Your task to perform on an android device: What's on my calendar tomorrow? Image 0: 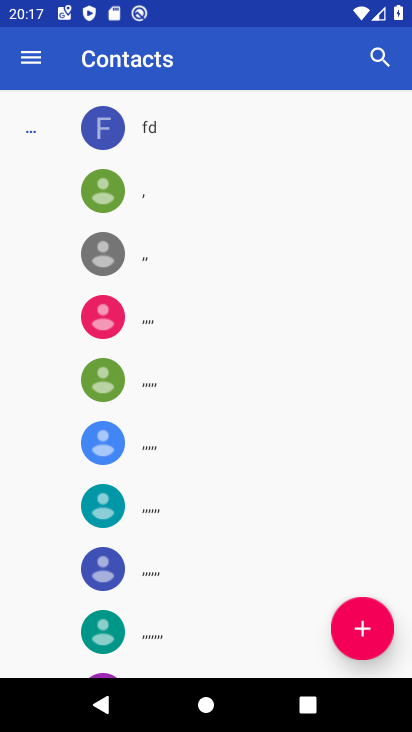
Step 0: press home button
Your task to perform on an android device: What's on my calendar tomorrow? Image 1: 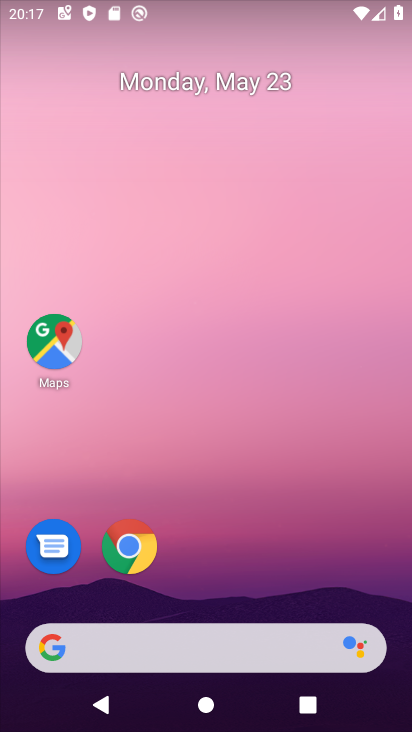
Step 1: drag from (380, 593) to (362, 173)
Your task to perform on an android device: What's on my calendar tomorrow? Image 2: 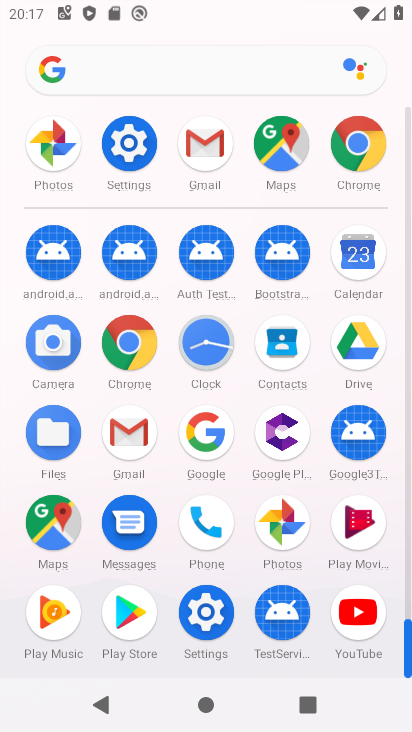
Step 2: click (361, 272)
Your task to perform on an android device: What's on my calendar tomorrow? Image 3: 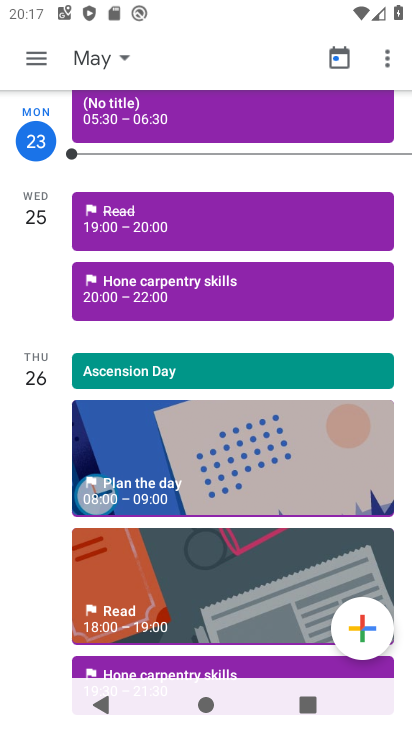
Step 3: click (120, 66)
Your task to perform on an android device: What's on my calendar tomorrow? Image 4: 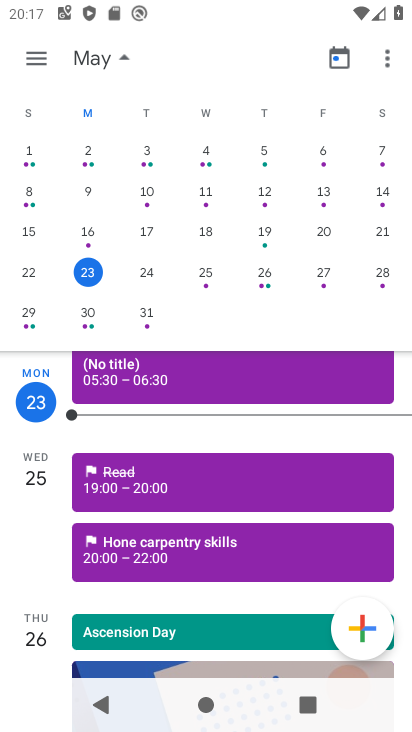
Step 4: click (174, 486)
Your task to perform on an android device: What's on my calendar tomorrow? Image 5: 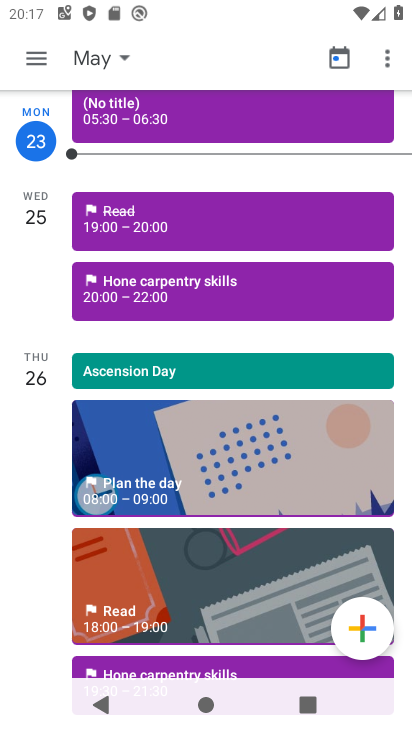
Step 5: click (173, 294)
Your task to perform on an android device: What's on my calendar tomorrow? Image 6: 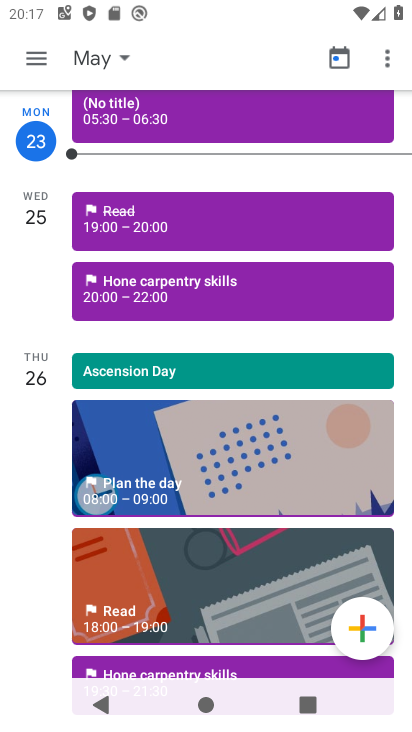
Step 6: click (173, 294)
Your task to perform on an android device: What's on my calendar tomorrow? Image 7: 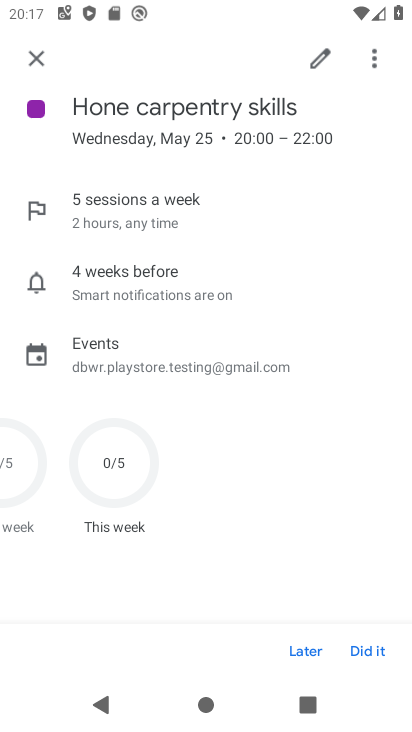
Step 7: task complete